Your task to perform on an android device: Open the Play Movies app and select the watchlist tab. Image 0: 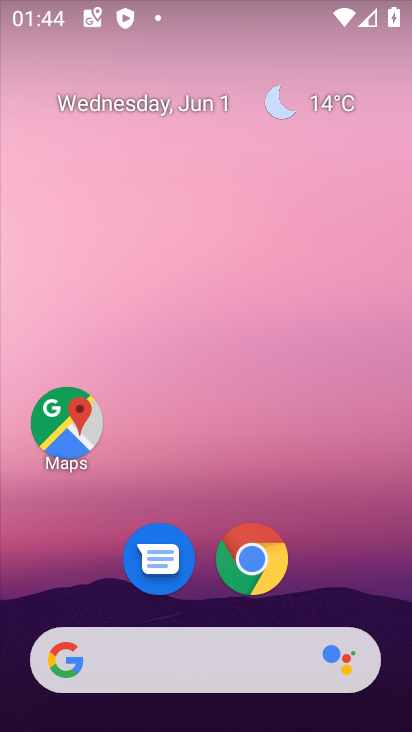
Step 0: drag from (387, 683) to (359, 89)
Your task to perform on an android device: Open the Play Movies app and select the watchlist tab. Image 1: 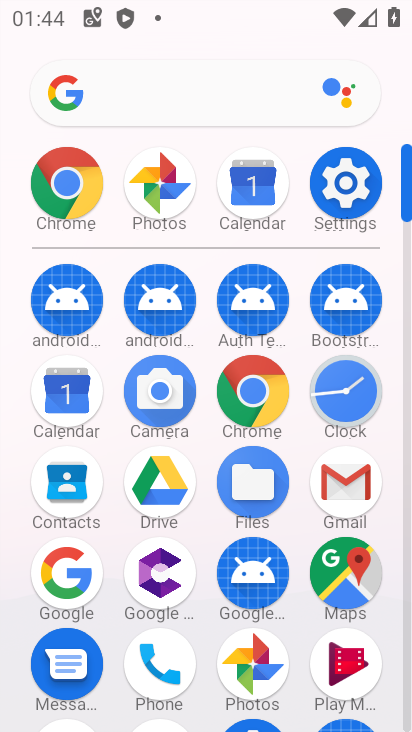
Step 1: click (341, 668)
Your task to perform on an android device: Open the Play Movies app and select the watchlist tab. Image 2: 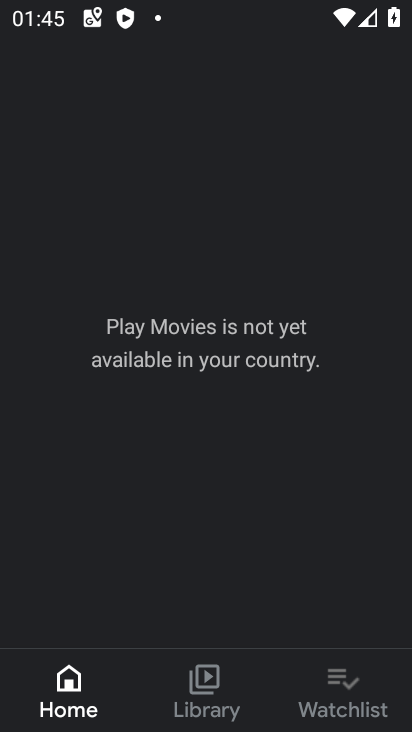
Step 2: click (349, 692)
Your task to perform on an android device: Open the Play Movies app and select the watchlist tab. Image 3: 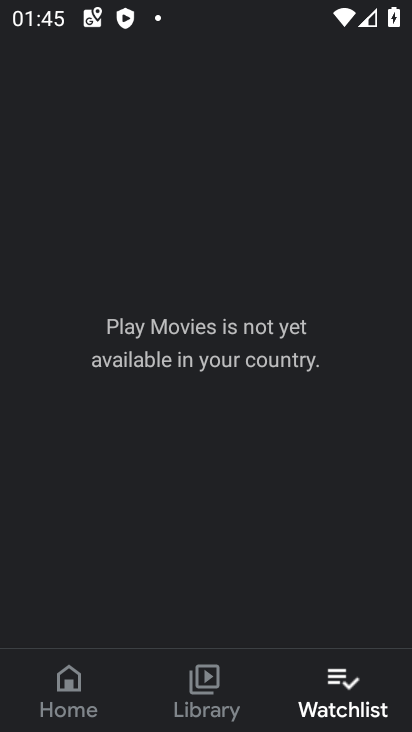
Step 3: task complete